Your task to perform on an android device: delete a single message in the gmail app Image 0: 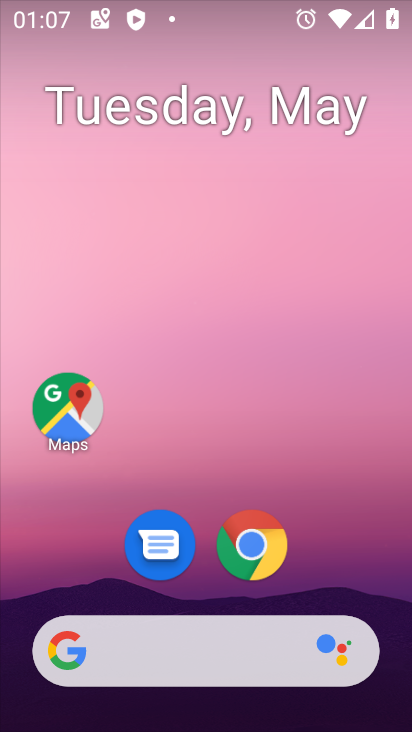
Step 0: drag from (324, 461) to (302, 65)
Your task to perform on an android device: delete a single message in the gmail app Image 1: 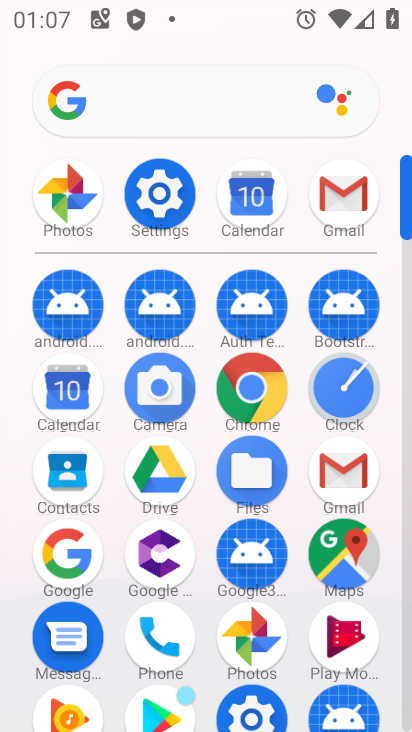
Step 1: click (350, 482)
Your task to perform on an android device: delete a single message in the gmail app Image 2: 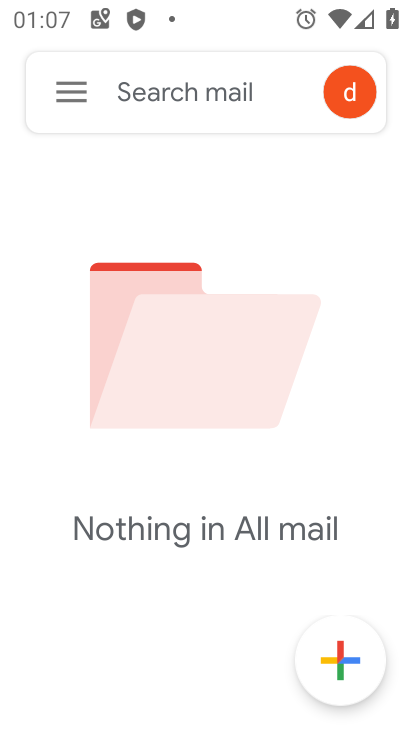
Step 2: click (60, 86)
Your task to perform on an android device: delete a single message in the gmail app Image 3: 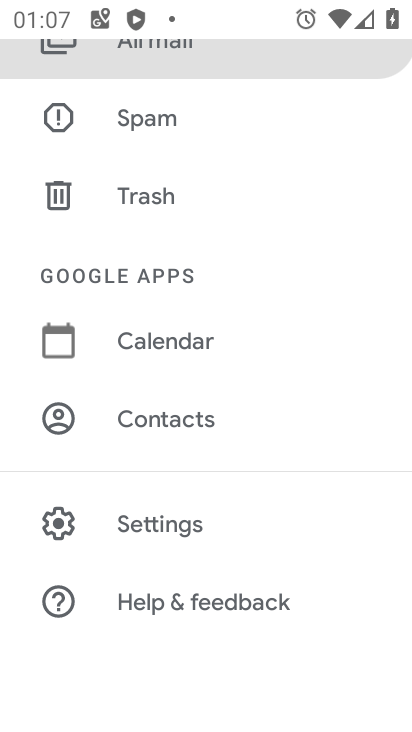
Step 3: click (146, 62)
Your task to perform on an android device: delete a single message in the gmail app Image 4: 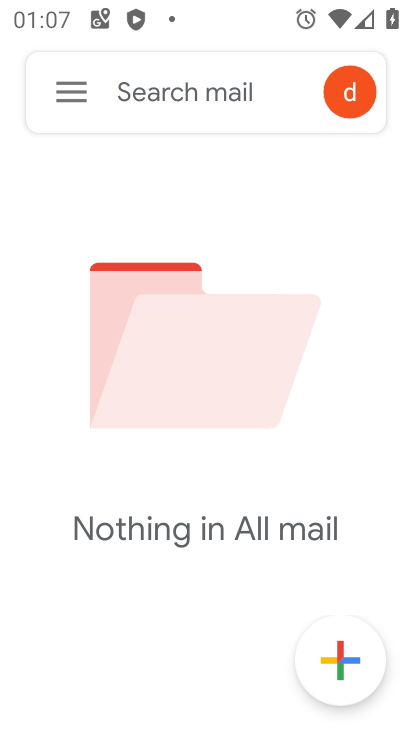
Step 4: task complete